Your task to perform on an android device: make emails show in primary in the gmail app Image 0: 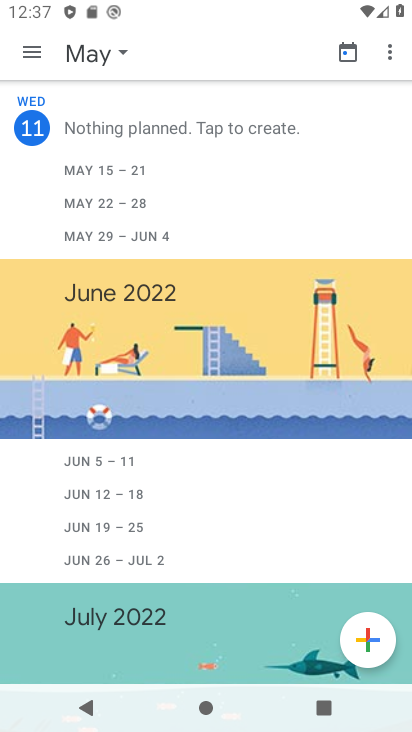
Step 0: press home button
Your task to perform on an android device: make emails show in primary in the gmail app Image 1: 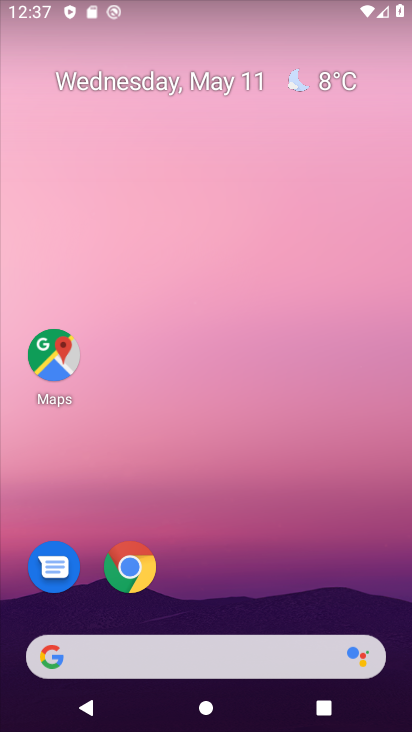
Step 1: drag from (210, 440) to (210, 70)
Your task to perform on an android device: make emails show in primary in the gmail app Image 2: 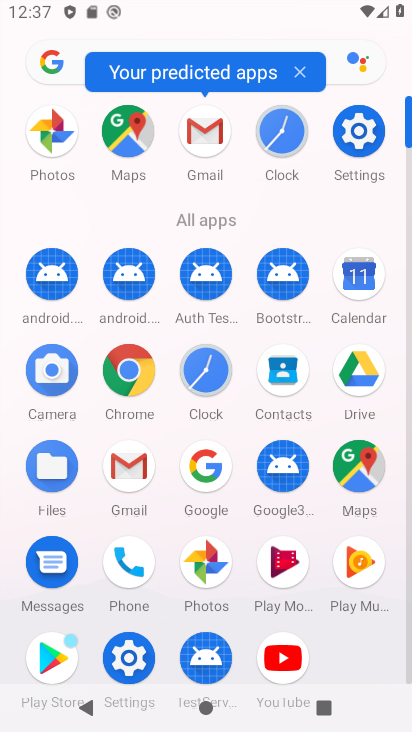
Step 2: click (211, 134)
Your task to perform on an android device: make emails show in primary in the gmail app Image 3: 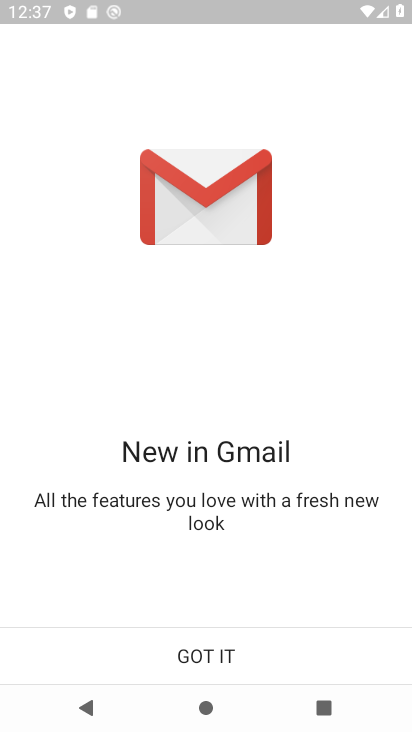
Step 3: click (263, 670)
Your task to perform on an android device: make emails show in primary in the gmail app Image 4: 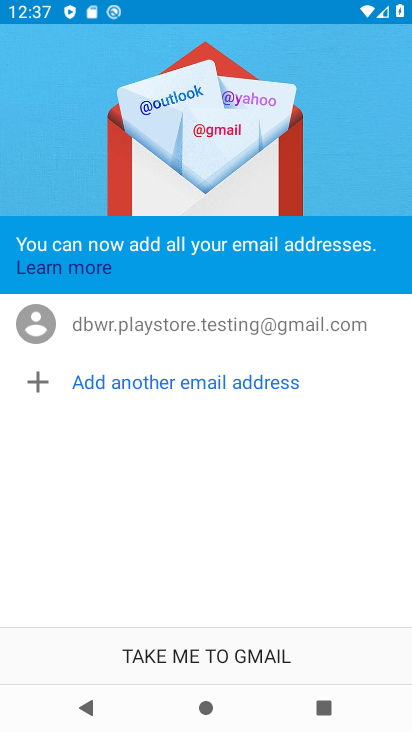
Step 4: click (263, 668)
Your task to perform on an android device: make emails show in primary in the gmail app Image 5: 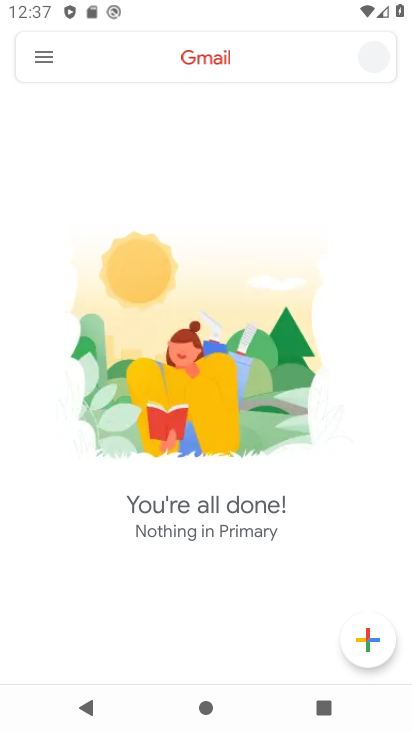
Step 5: click (42, 49)
Your task to perform on an android device: make emails show in primary in the gmail app Image 6: 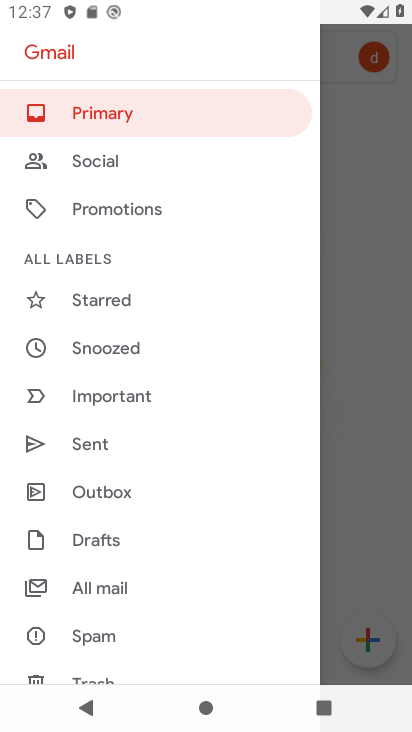
Step 6: drag from (107, 629) to (151, 283)
Your task to perform on an android device: make emails show in primary in the gmail app Image 7: 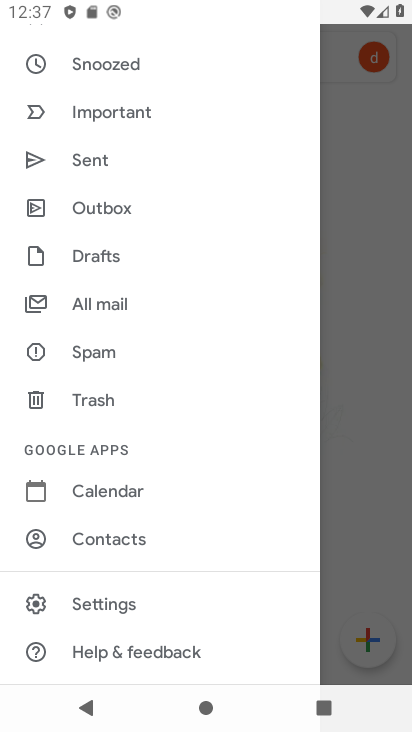
Step 7: click (143, 608)
Your task to perform on an android device: make emails show in primary in the gmail app Image 8: 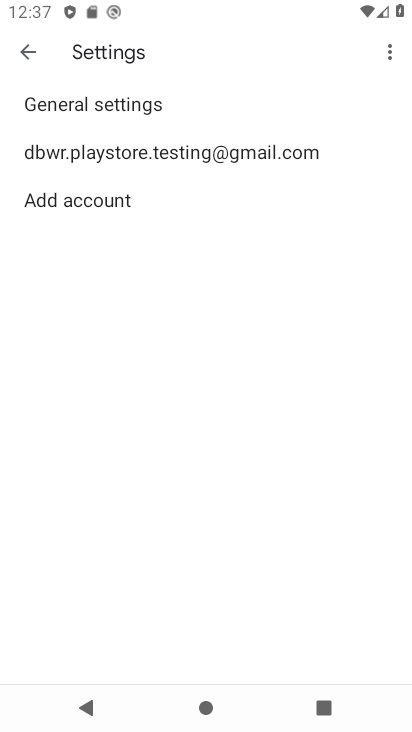
Step 8: click (189, 153)
Your task to perform on an android device: make emails show in primary in the gmail app Image 9: 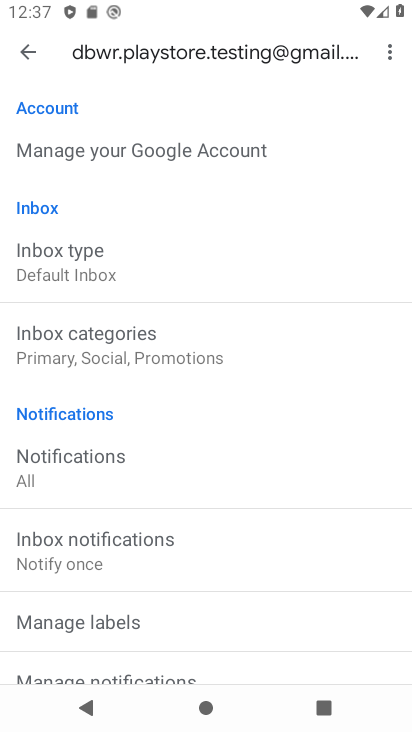
Step 9: click (160, 279)
Your task to perform on an android device: make emails show in primary in the gmail app Image 10: 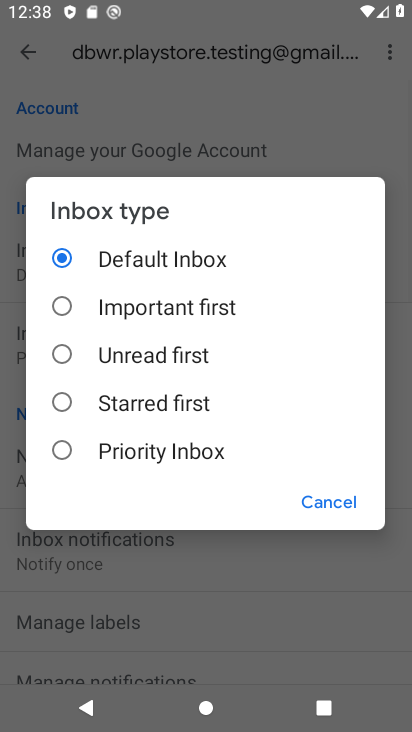
Step 10: click (165, 259)
Your task to perform on an android device: make emails show in primary in the gmail app Image 11: 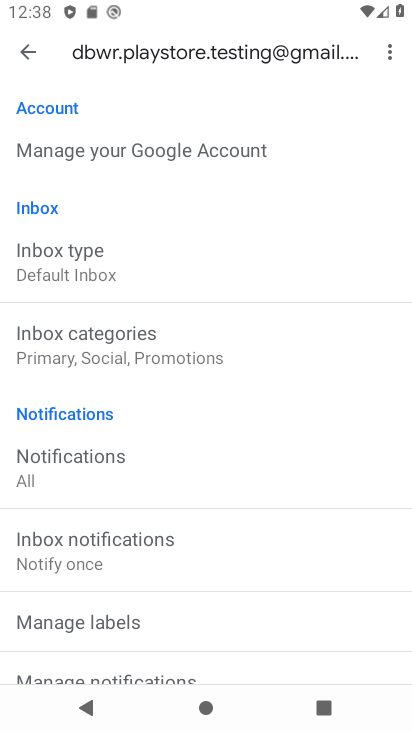
Step 11: task complete